Your task to perform on an android device: toggle improve location accuracy Image 0: 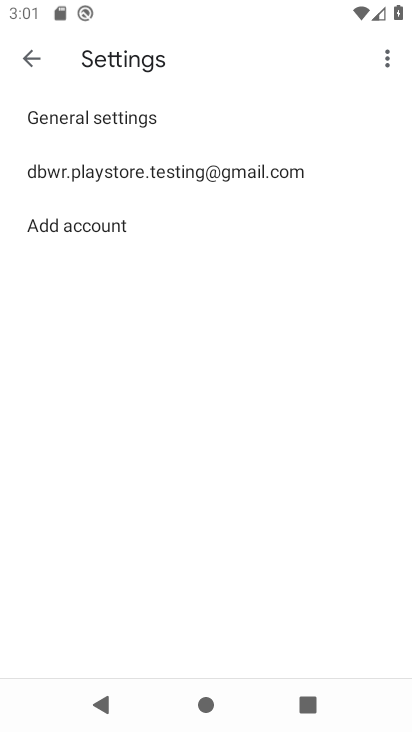
Step 0: press home button
Your task to perform on an android device: toggle improve location accuracy Image 1: 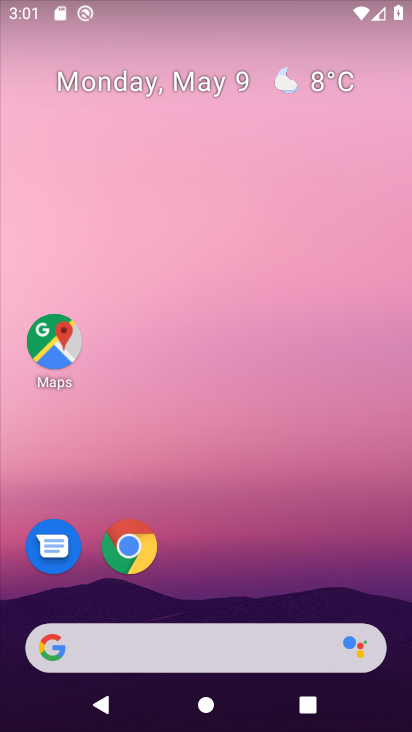
Step 1: drag from (223, 564) to (243, 46)
Your task to perform on an android device: toggle improve location accuracy Image 2: 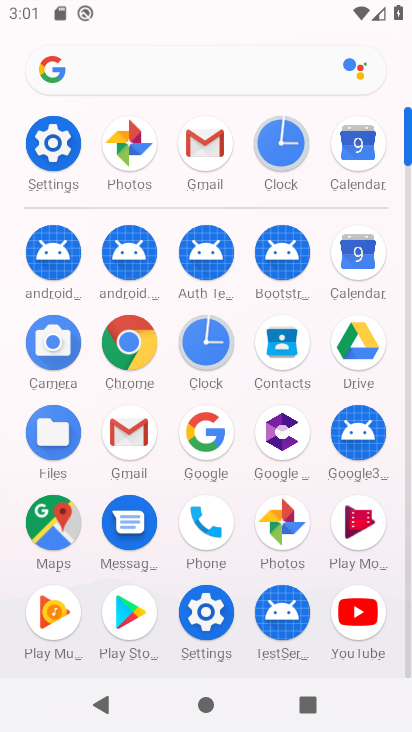
Step 2: click (63, 136)
Your task to perform on an android device: toggle improve location accuracy Image 3: 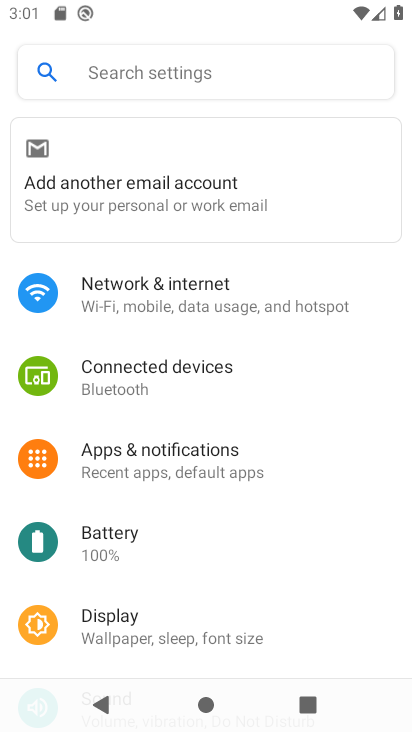
Step 3: drag from (248, 616) to (236, 282)
Your task to perform on an android device: toggle improve location accuracy Image 4: 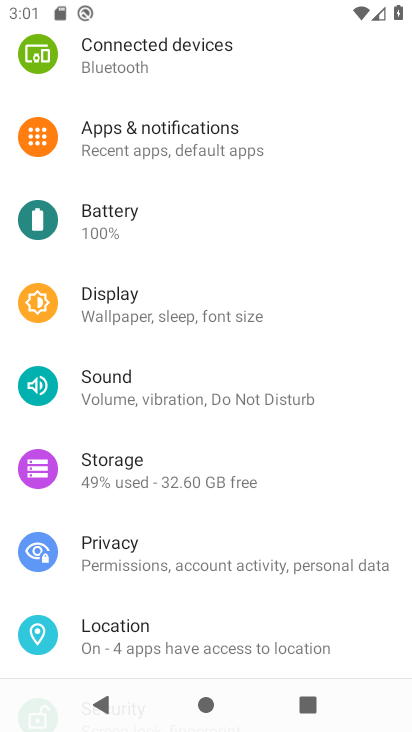
Step 4: click (235, 626)
Your task to perform on an android device: toggle improve location accuracy Image 5: 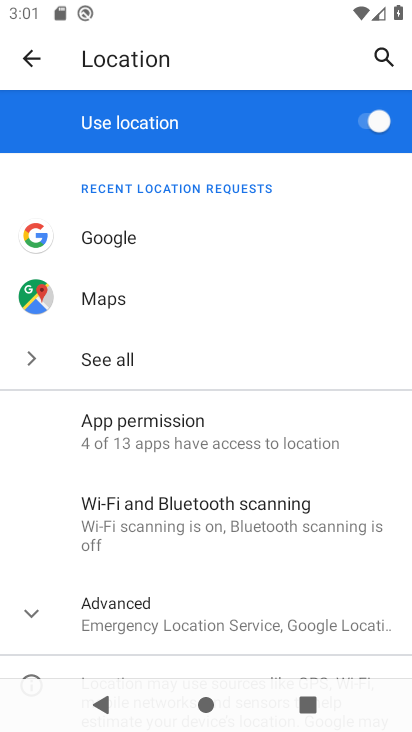
Step 5: click (32, 610)
Your task to perform on an android device: toggle improve location accuracy Image 6: 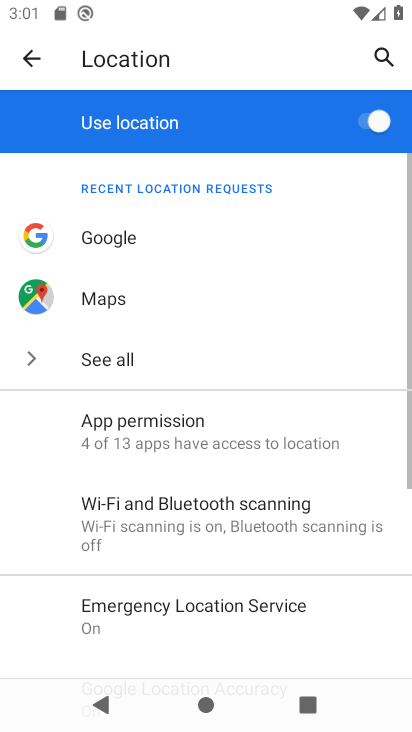
Step 6: drag from (217, 554) to (237, 283)
Your task to perform on an android device: toggle improve location accuracy Image 7: 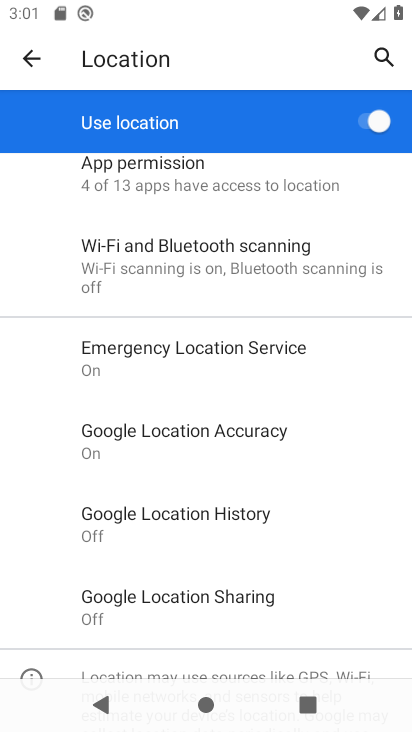
Step 7: click (243, 429)
Your task to perform on an android device: toggle improve location accuracy Image 8: 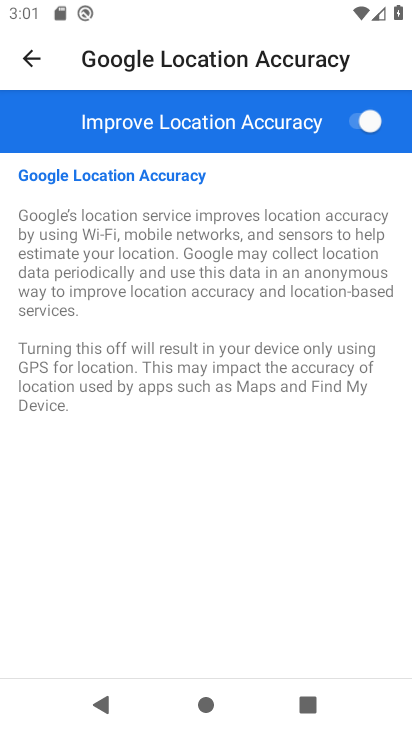
Step 8: click (354, 115)
Your task to perform on an android device: toggle improve location accuracy Image 9: 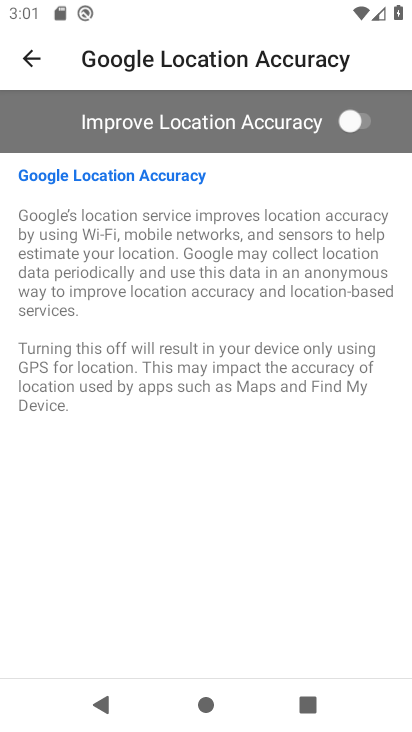
Step 9: task complete